Your task to perform on an android device: Open Chrome and go to settings Image 0: 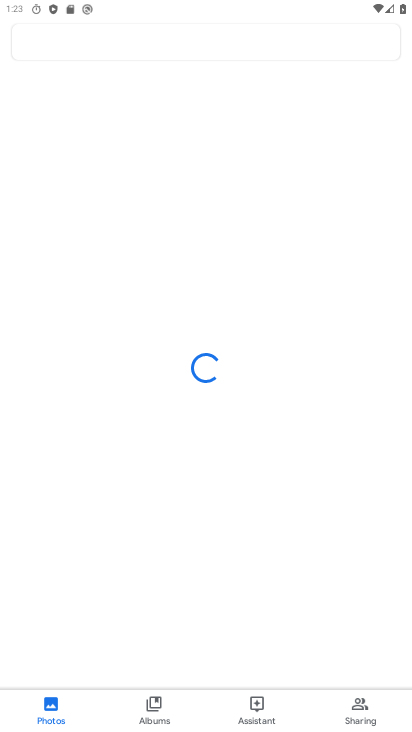
Step 0: press home button
Your task to perform on an android device: Open Chrome and go to settings Image 1: 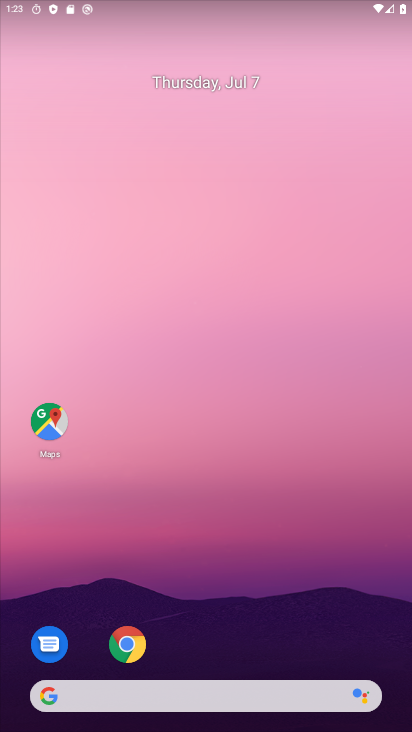
Step 1: click (128, 645)
Your task to perform on an android device: Open Chrome and go to settings Image 2: 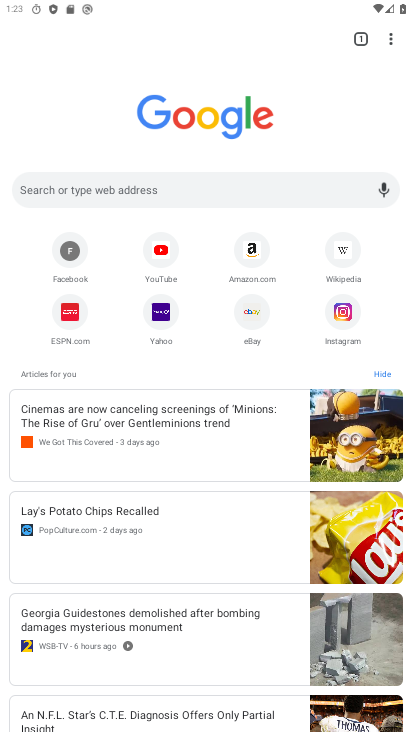
Step 2: click (390, 40)
Your task to perform on an android device: Open Chrome and go to settings Image 3: 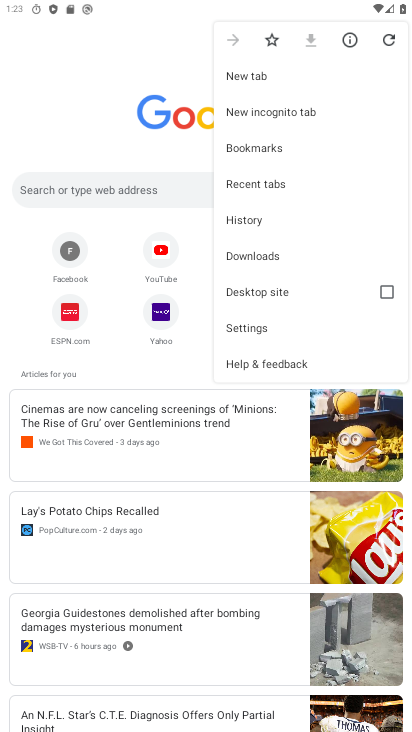
Step 3: click (239, 327)
Your task to perform on an android device: Open Chrome and go to settings Image 4: 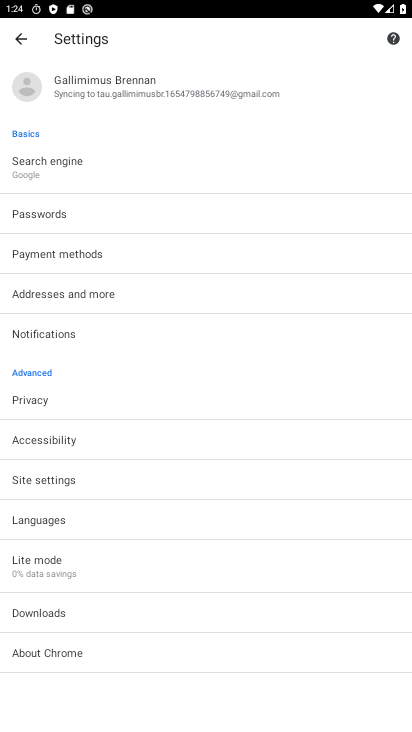
Step 4: task complete